Your task to perform on an android device: uninstall "Reddit" Image 0: 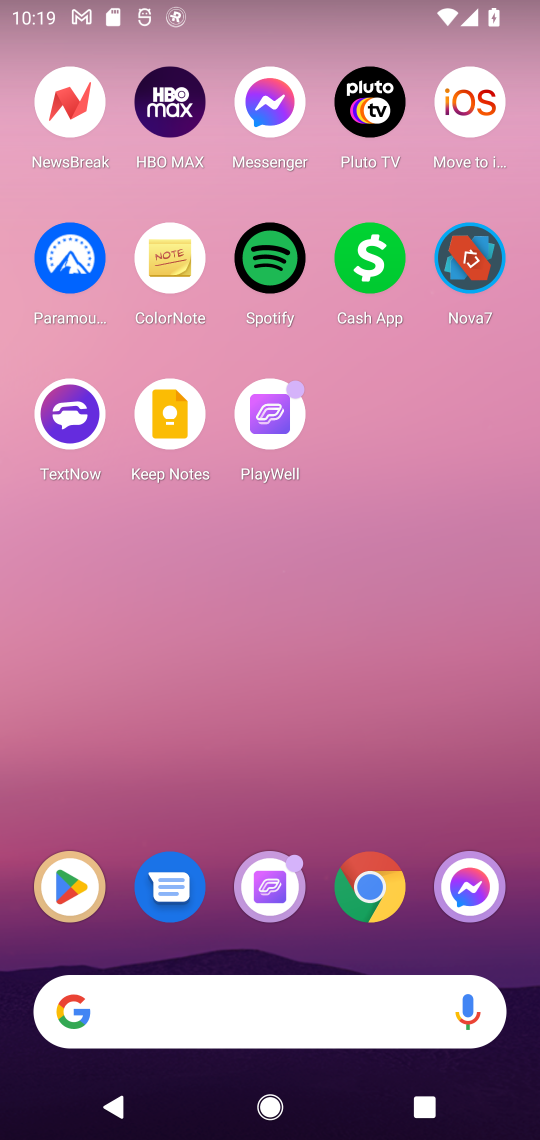
Step 0: click (79, 867)
Your task to perform on an android device: uninstall "Reddit" Image 1: 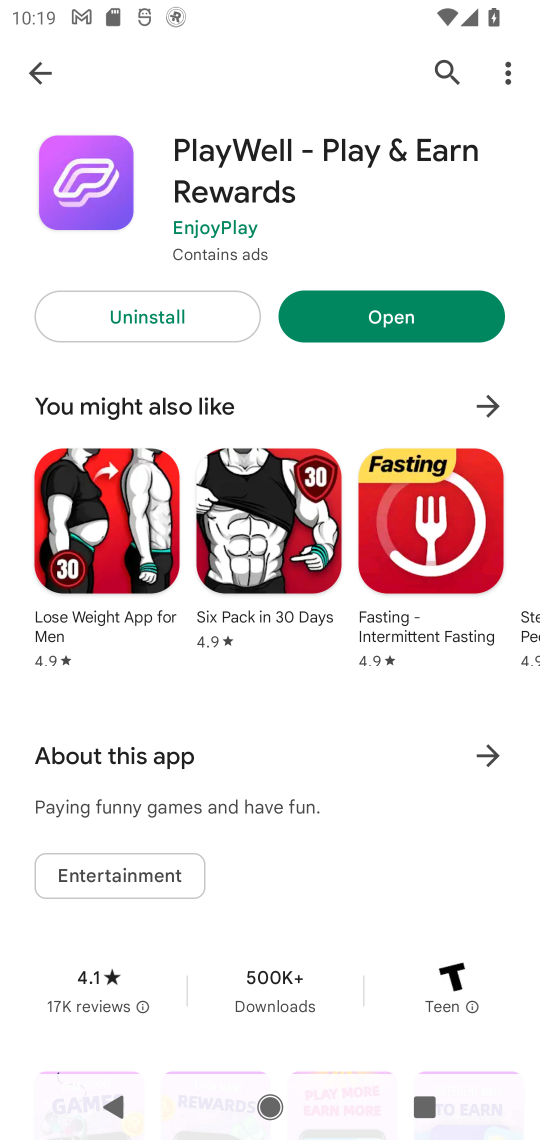
Step 1: click (446, 71)
Your task to perform on an android device: uninstall "Reddit" Image 2: 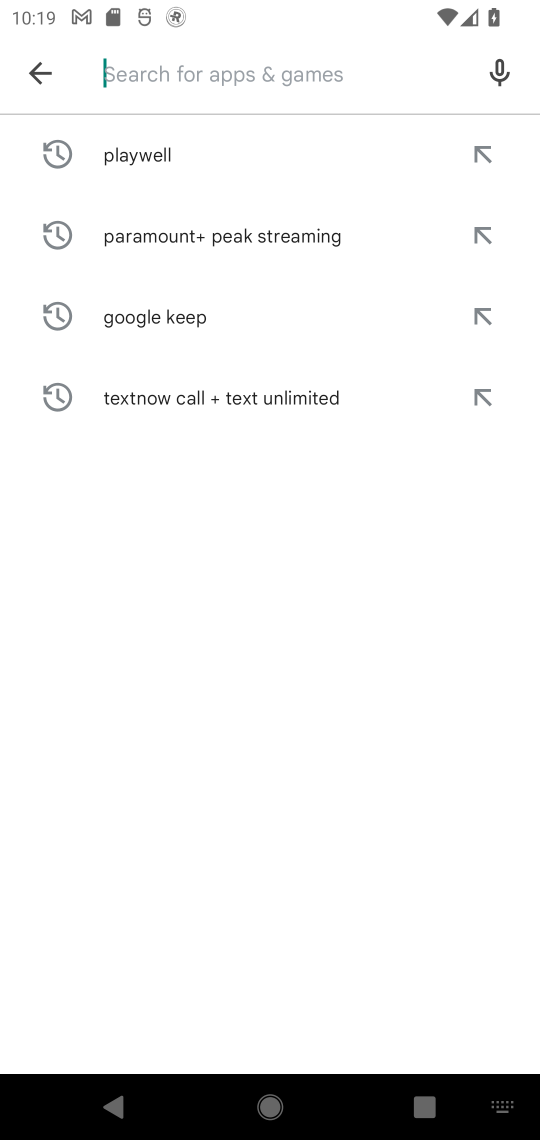
Step 2: type "Reddit"
Your task to perform on an android device: uninstall "Reddit" Image 3: 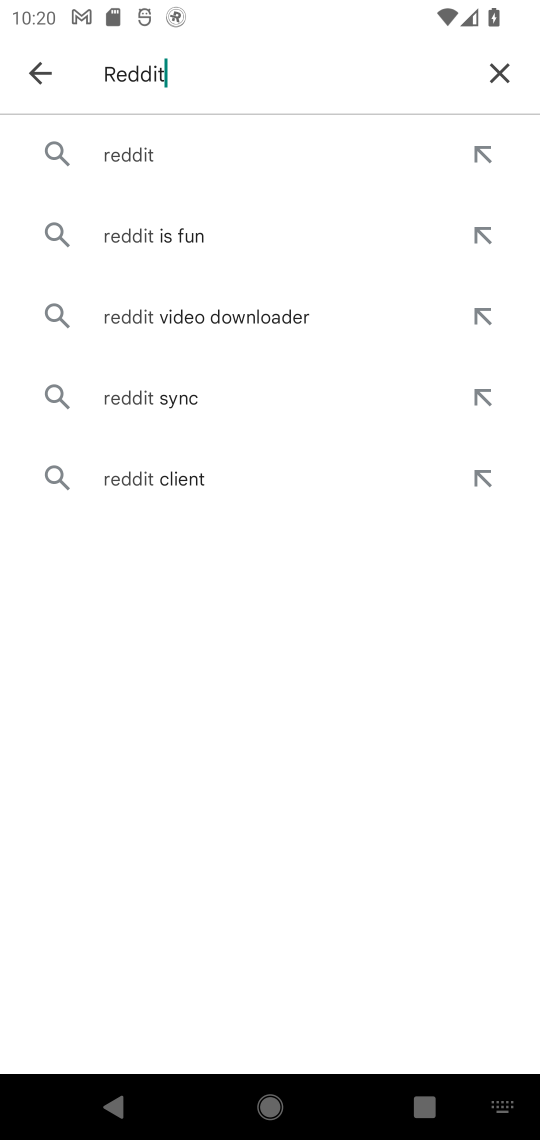
Step 3: click (280, 151)
Your task to perform on an android device: uninstall "Reddit" Image 4: 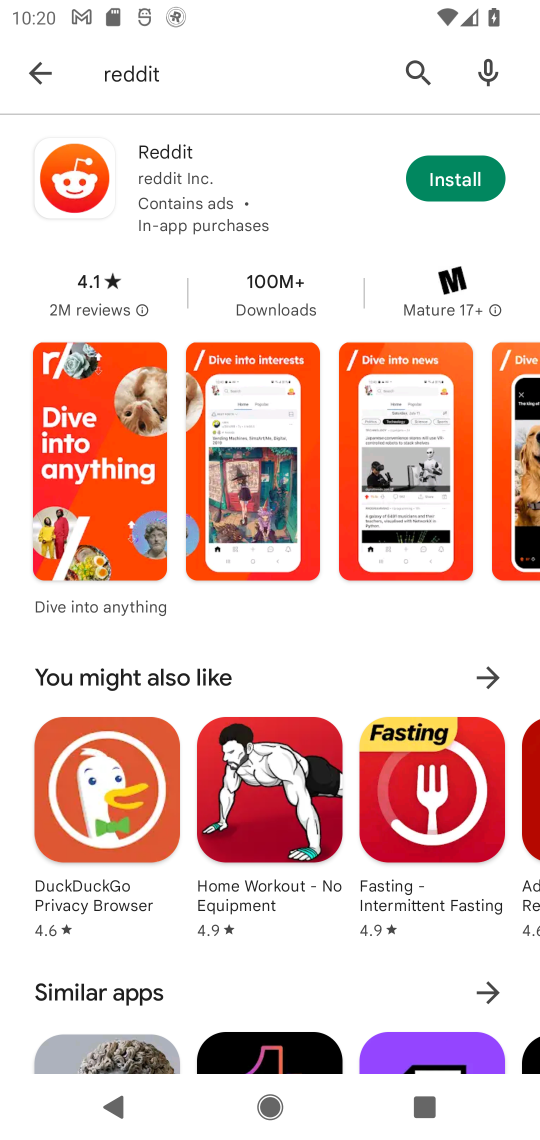
Step 4: click (195, 194)
Your task to perform on an android device: uninstall "Reddit" Image 5: 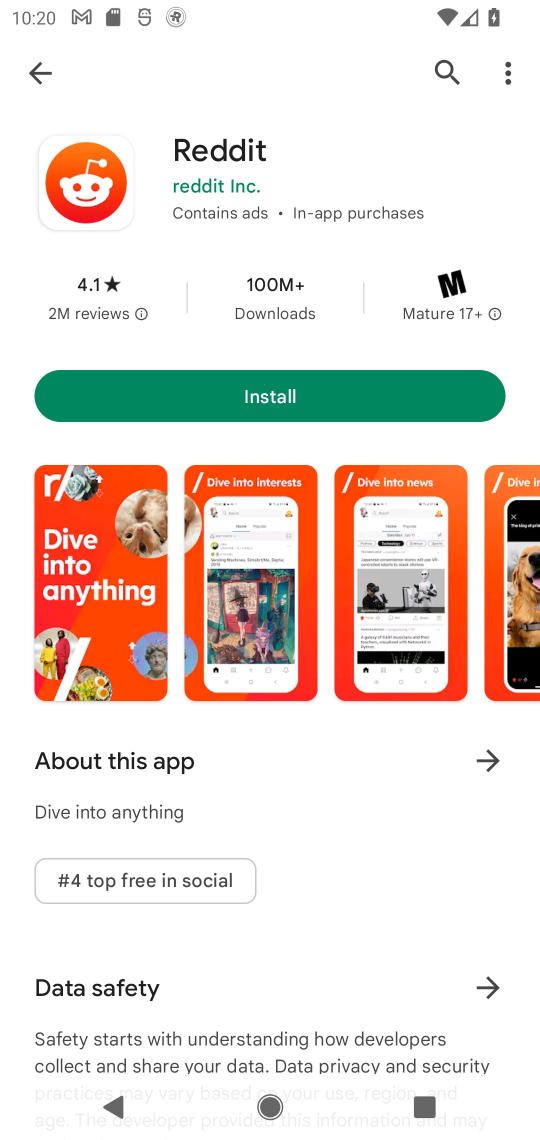
Step 5: task complete